Your task to perform on an android device: Open calendar and show me the third week of next month Image 0: 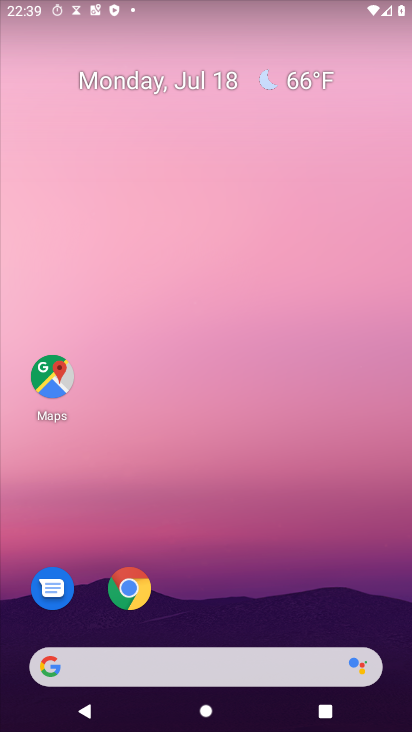
Step 0: drag from (190, 671) to (376, 201)
Your task to perform on an android device: Open calendar and show me the third week of next month Image 1: 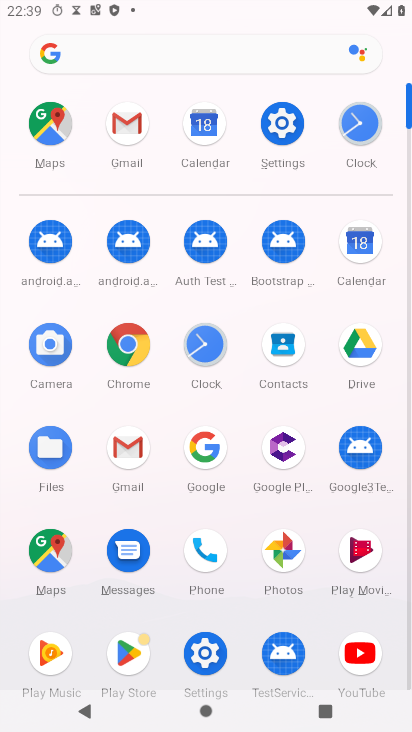
Step 1: click (366, 239)
Your task to perform on an android device: Open calendar and show me the third week of next month Image 2: 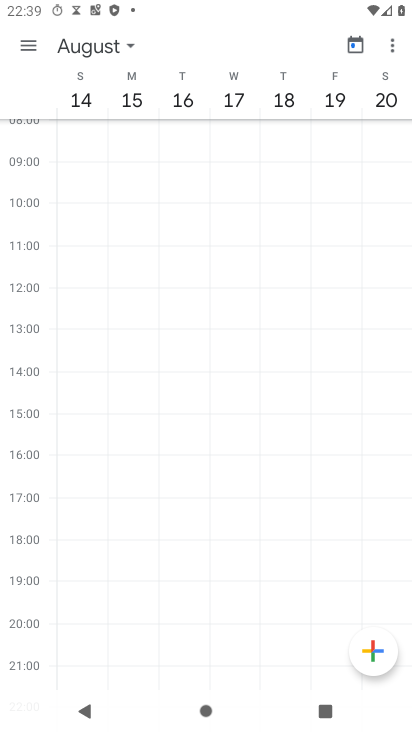
Step 2: click (94, 38)
Your task to perform on an android device: Open calendar and show me the third week of next month Image 3: 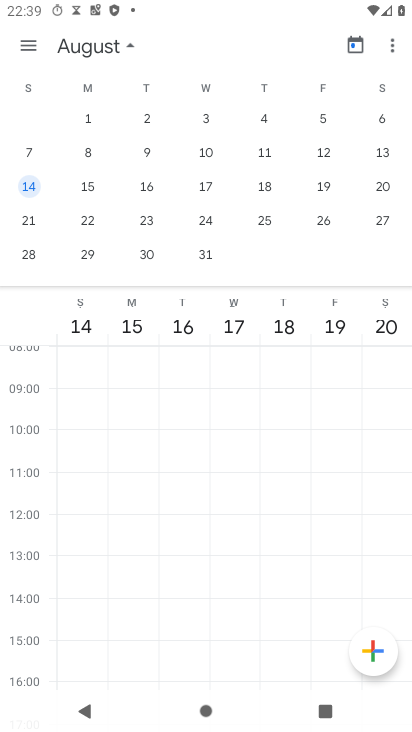
Step 3: task complete